Your task to perform on an android device: toggle priority inbox in the gmail app Image 0: 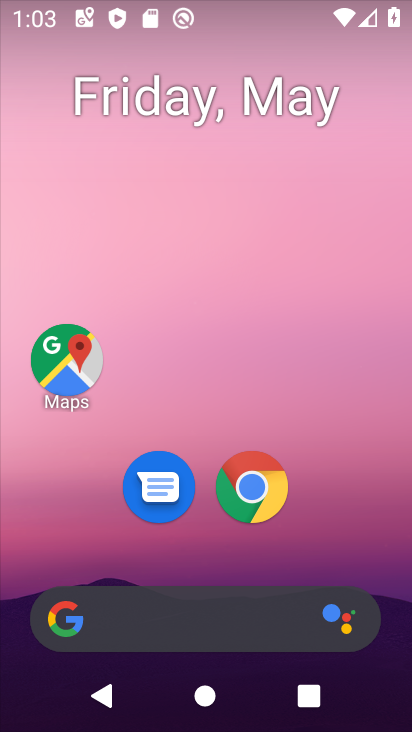
Step 0: click (168, 513)
Your task to perform on an android device: toggle priority inbox in the gmail app Image 1: 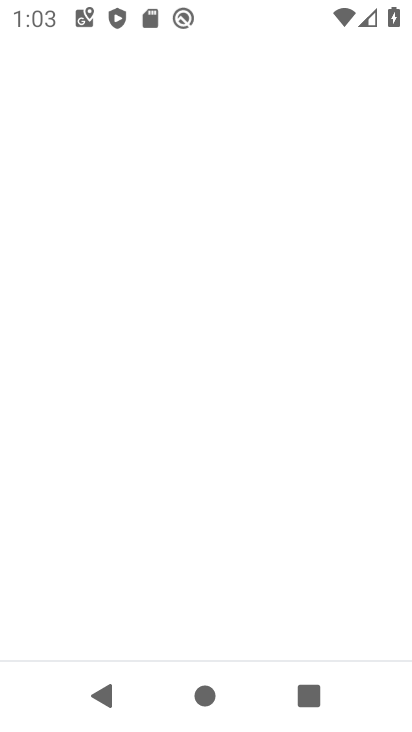
Step 1: drag from (194, 565) to (207, 533)
Your task to perform on an android device: toggle priority inbox in the gmail app Image 2: 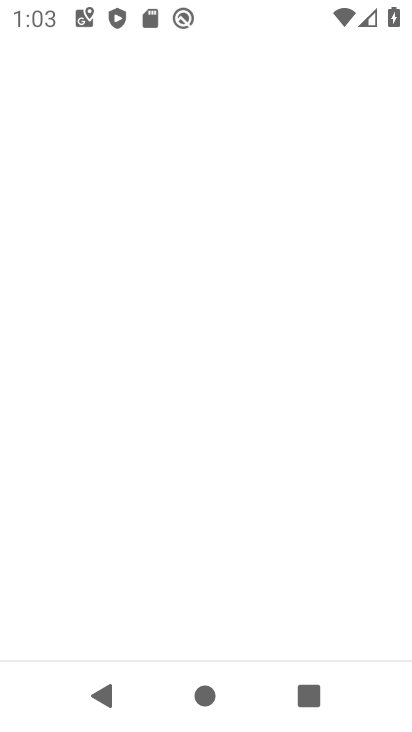
Step 2: click (207, 533)
Your task to perform on an android device: toggle priority inbox in the gmail app Image 3: 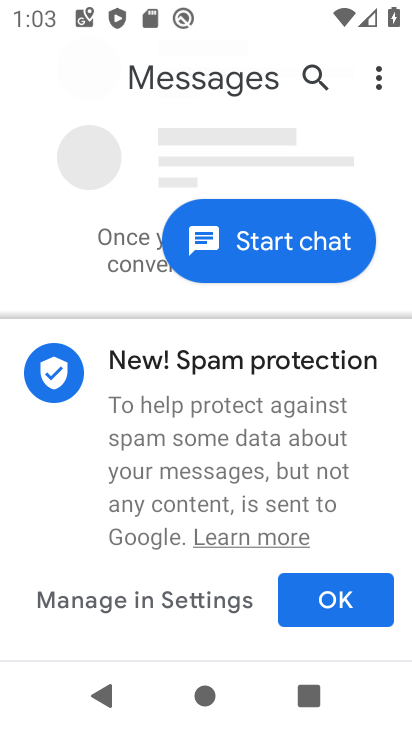
Step 3: press home button
Your task to perform on an android device: toggle priority inbox in the gmail app Image 4: 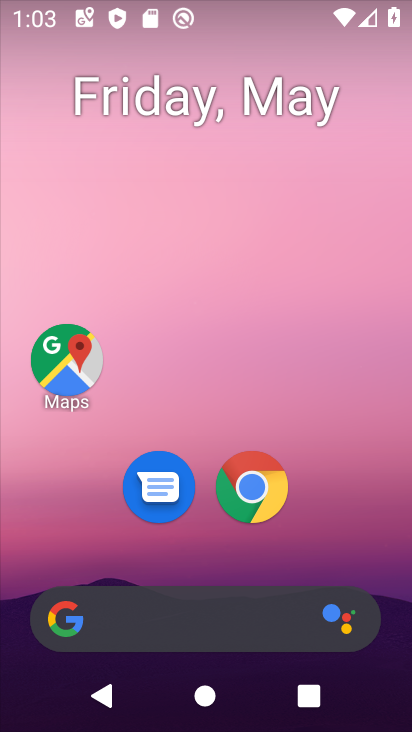
Step 4: drag from (198, 538) to (219, 24)
Your task to perform on an android device: toggle priority inbox in the gmail app Image 5: 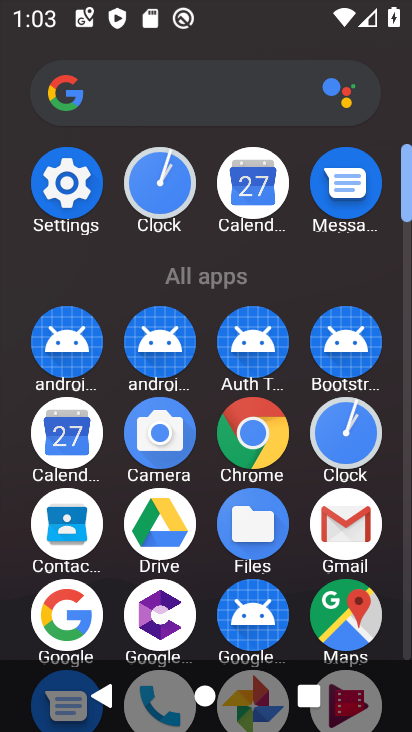
Step 5: click (323, 536)
Your task to perform on an android device: toggle priority inbox in the gmail app Image 6: 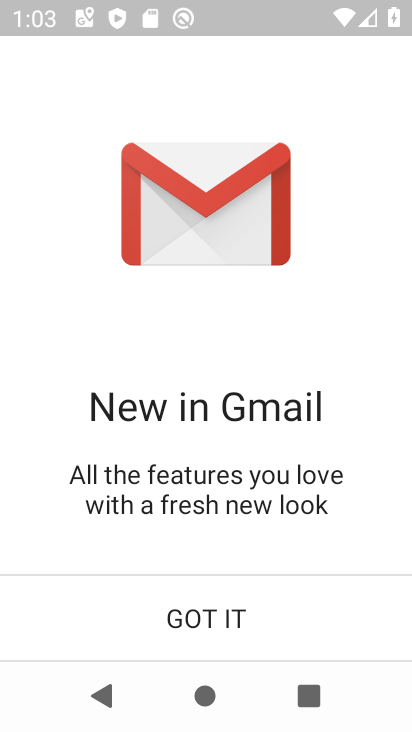
Step 6: click (185, 632)
Your task to perform on an android device: toggle priority inbox in the gmail app Image 7: 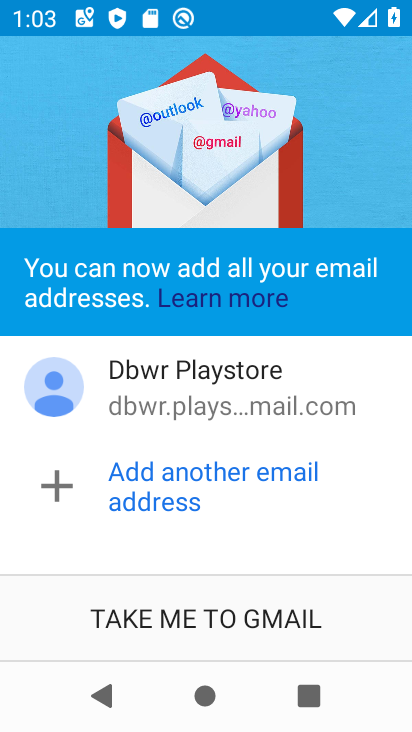
Step 7: click (185, 632)
Your task to perform on an android device: toggle priority inbox in the gmail app Image 8: 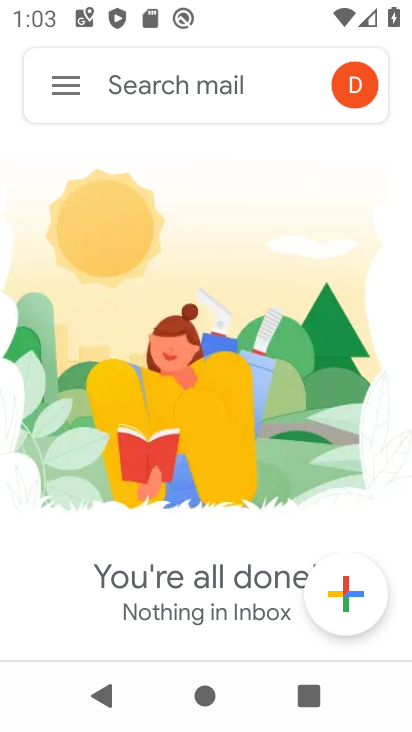
Step 8: click (77, 84)
Your task to perform on an android device: toggle priority inbox in the gmail app Image 9: 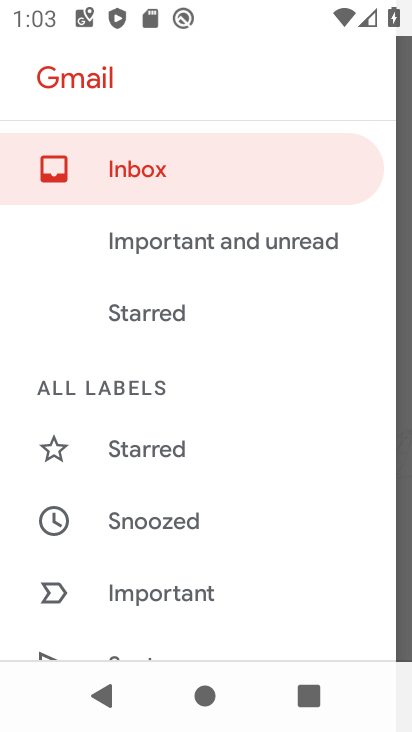
Step 9: drag from (122, 649) to (132, 187)
Your task to perform on an android device: toggle priority inbox in the gmail app Image 10: 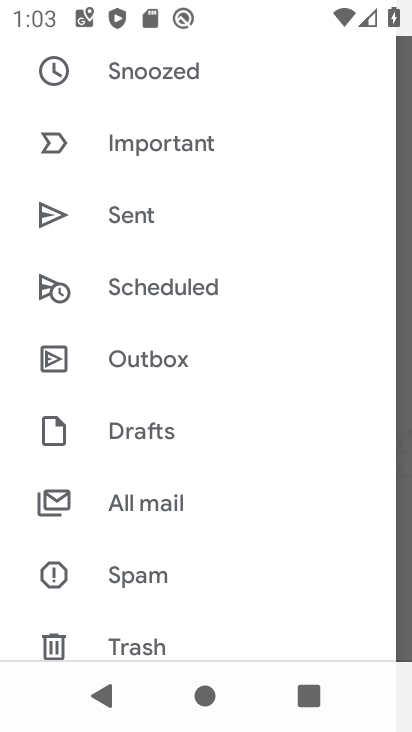
Step 10: drag from (89, 617) to (208, 81)
Your task to perform on an android device: toggle priority inbox in the gmail app Image 11: 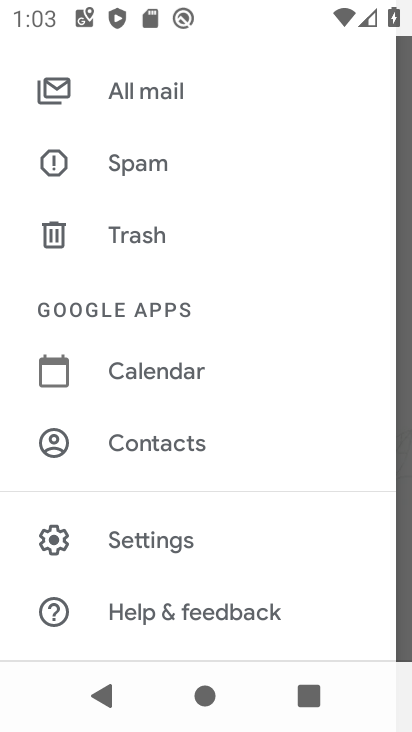
Step 11: click (124, 542)
Your task to perform on an android device: toggle priority inbox in the gmail app Image 12: 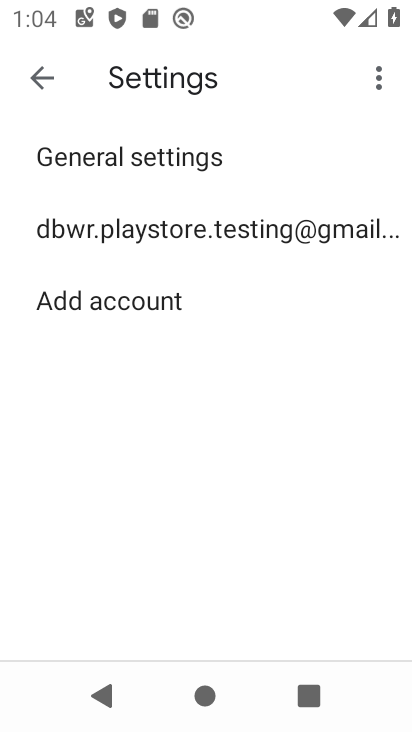
Step 12: click (223, 246)
Your task to perform on an android device: toggle priority inbox in the gmail app Image 13: 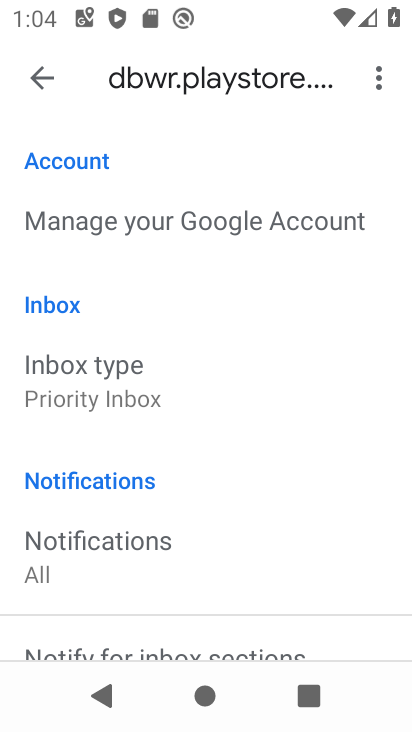
Step 13: click (124, 380)
Your task to perform on an android device: toggle priority inbox in the gmail app Image 14: 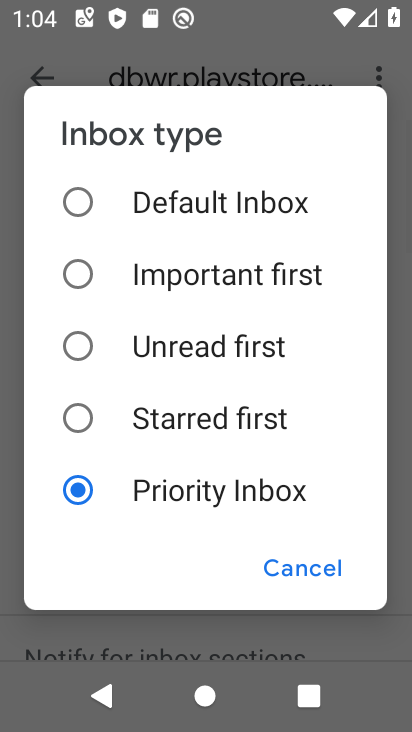
Step 14: click (124, 380)
Your task to perform on an android device: toggle priority inbox in the gmail app Image 15: 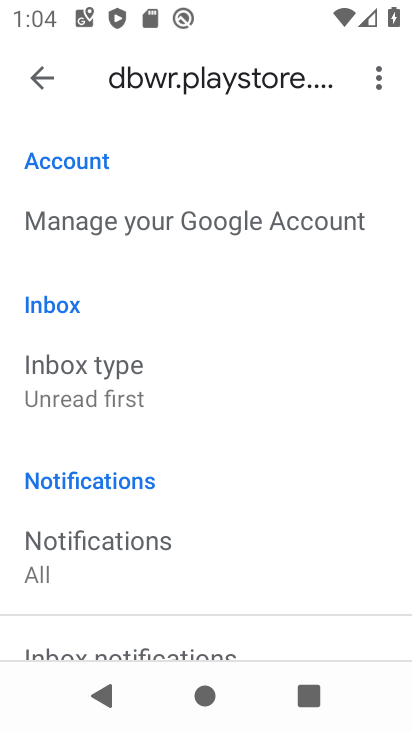
Step 15: task complete